Your task to perform on an android device: Open Android settings Image 0: 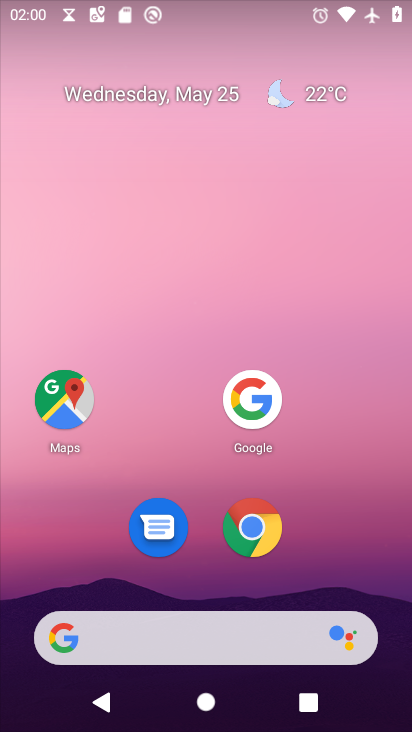
Step 0: press home button
Your task to perform on an android device: Open Android settings Image 1: 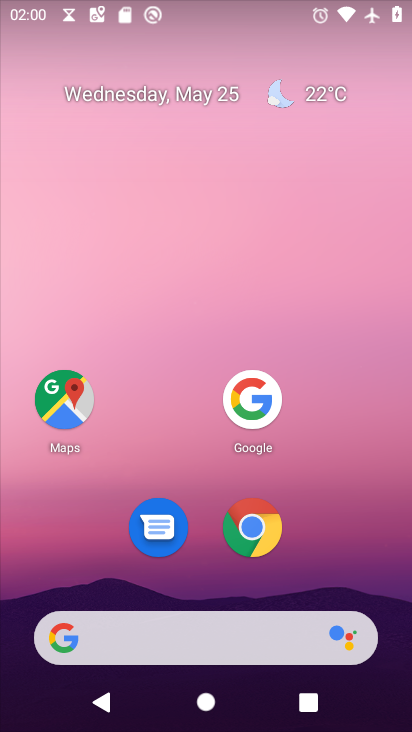
Step 1: drag from (184, 616) to (296, 61)
Your task to perform on an android device: Open Android settings Image 2: 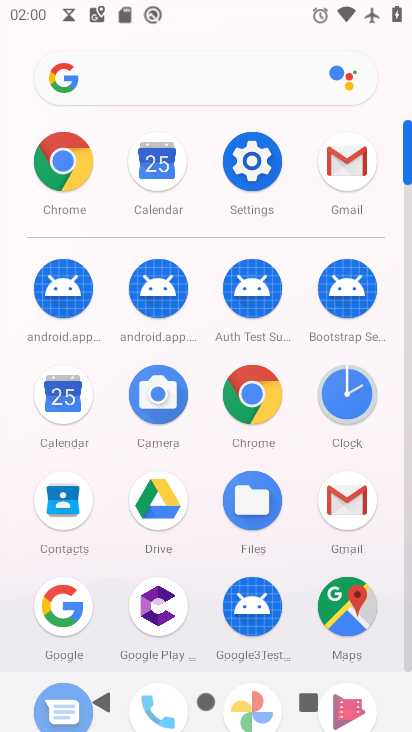
Step 2: click (258, 171)
Your task to perform on an android device: Open Android settings Image 3: 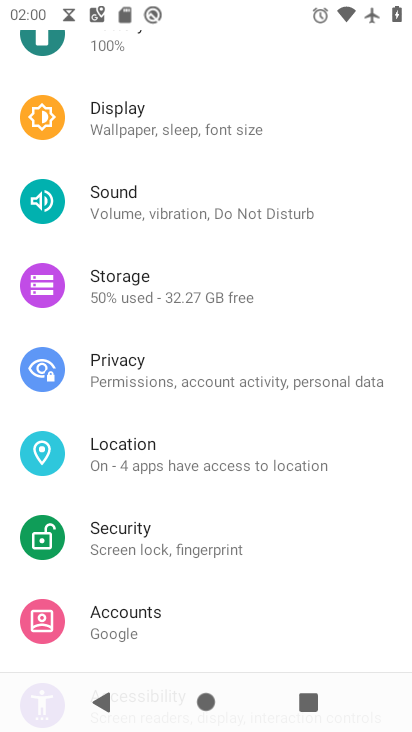
Step 3: task complete